Your task to perform on an android device: Go to notification settings Image 0: 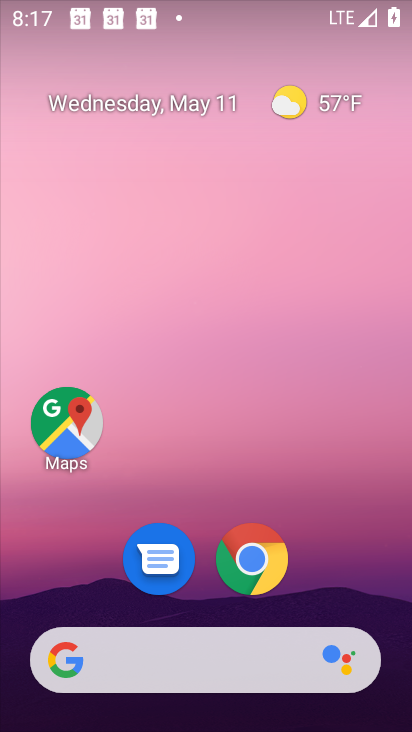
Step 0: press home button
Your task to perform on an android device: Go to notification settings Image 1: 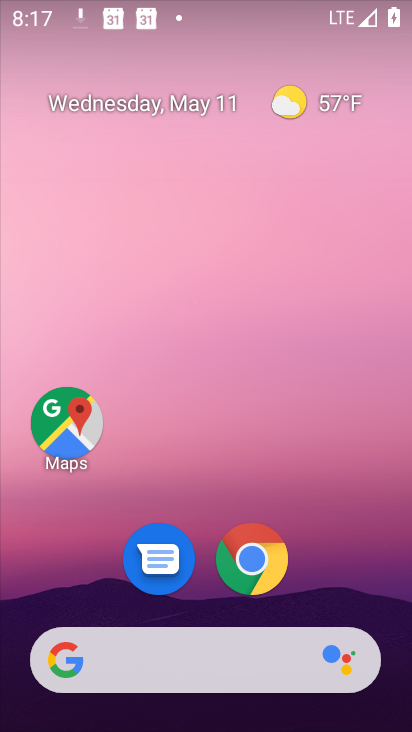
Step 1: drag from (369, 535) to (355, 14)
Your task to perform on an android device: Go to notification settings Image 2: 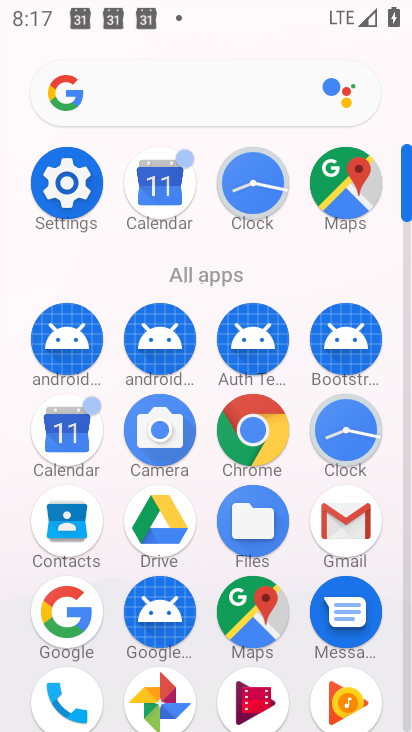
Step 2: click (407, 725)
Your task to perform on an android device: Go to notification settings Image 3: 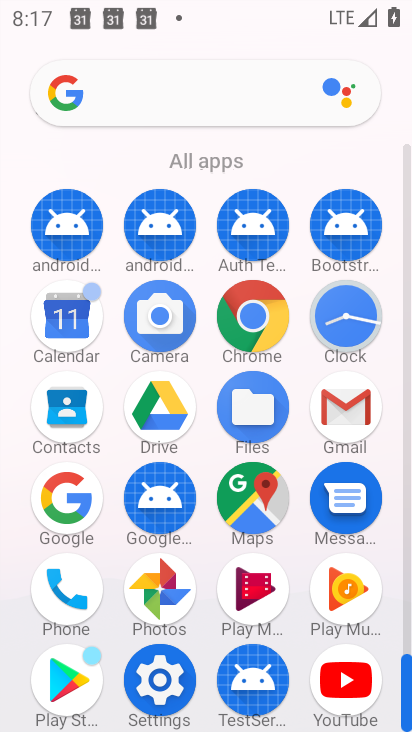
Step 3: click (154, 669)
Your task to perform on an android device: Go to notification settings Image 4: 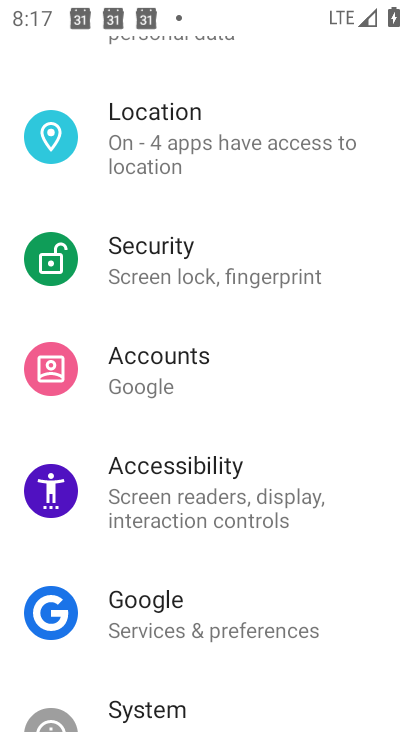
Step 4: drag from (269, 163) to (257, 703)
Your task to perform on an android device: Go to notification settings Image 5: 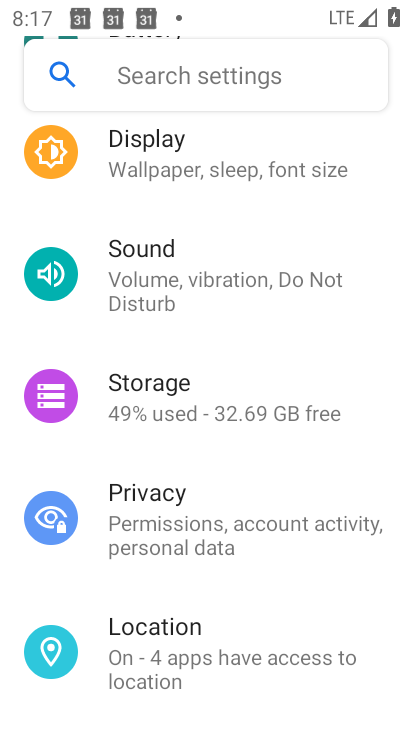
Step 5: drag from (267, 161) to (261, 512)
Your task to perform on an android device: Go to notification settings Image 6: 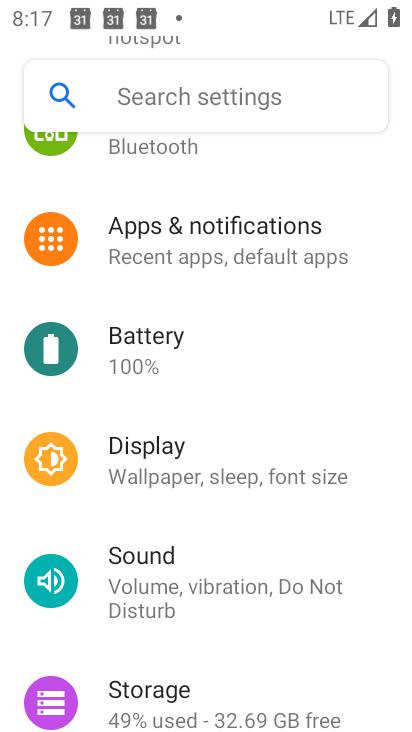
Step 6: click (292, 220)
Your task to perform on an android device: Go to notification settings Image 7: 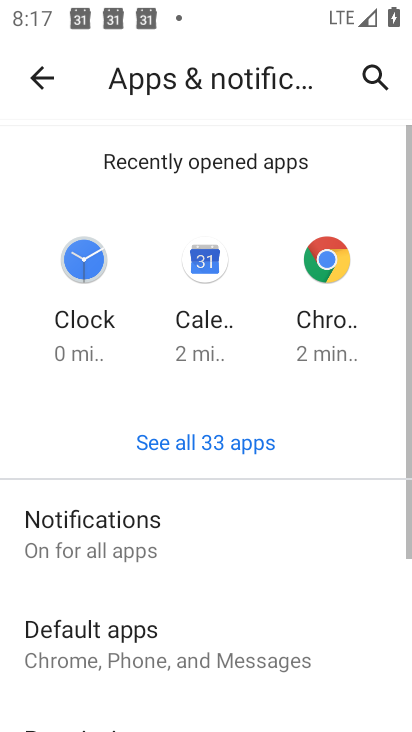
Step 7: task complete